Your task to perform on an android device: How big is the moon? Image 0: 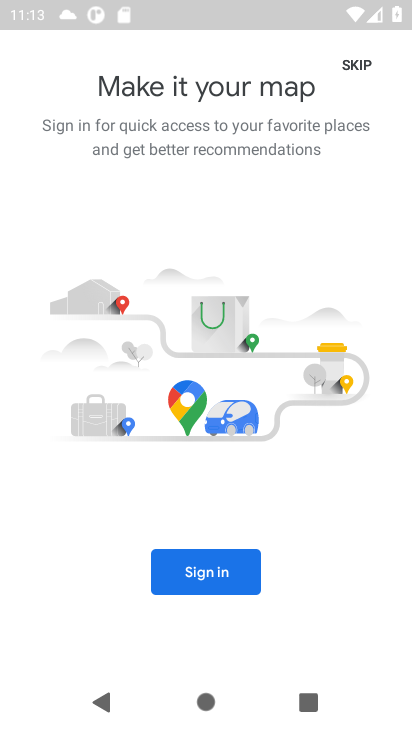
Step 0: press home button
Your task to perform on an android device: How big is the moon? Image 1: 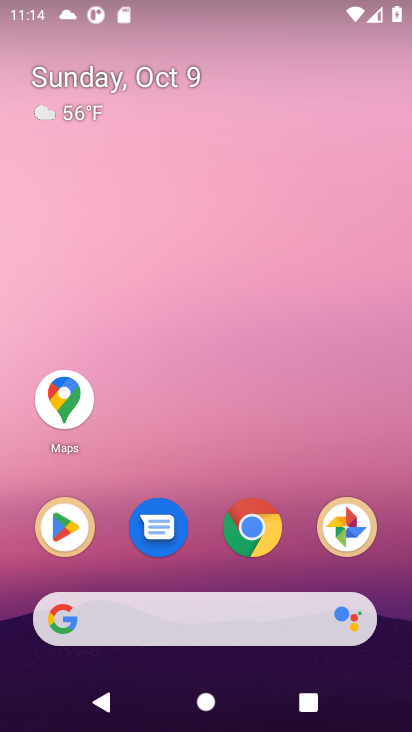
Step 1: click (257, 528)
Your task to perform on an android device: How big is the moon? Image 2: 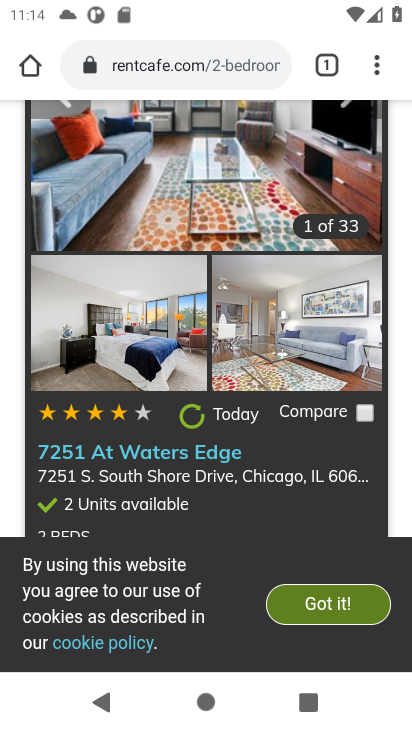
Step 2: click (222, 63)
Your task to perform on an android device: How big is the moon? Image 3: 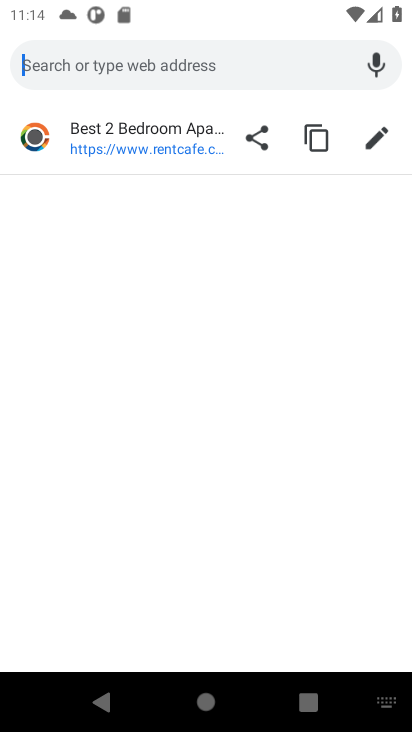
Step 3: type "How big is the moon?"
Your task to perform on an android device: How big is the moon? Image 4: 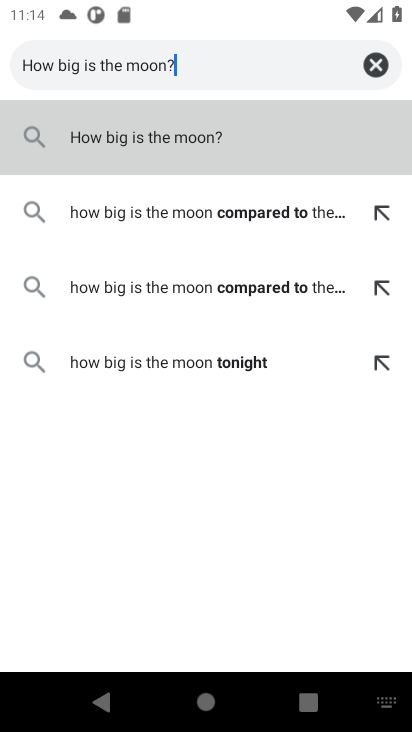
Step 4: click (205, 151)
Your task to perform on an android device: How big is the moon? Image 5: 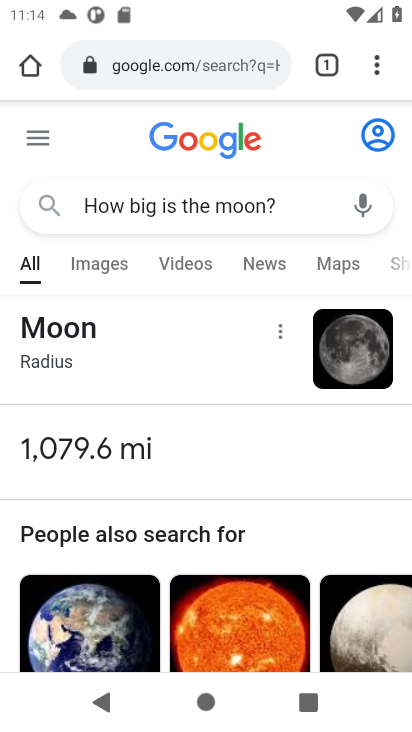
Step 5: task complete